Your task to perform on an android device: Open Google Maps Image 0: 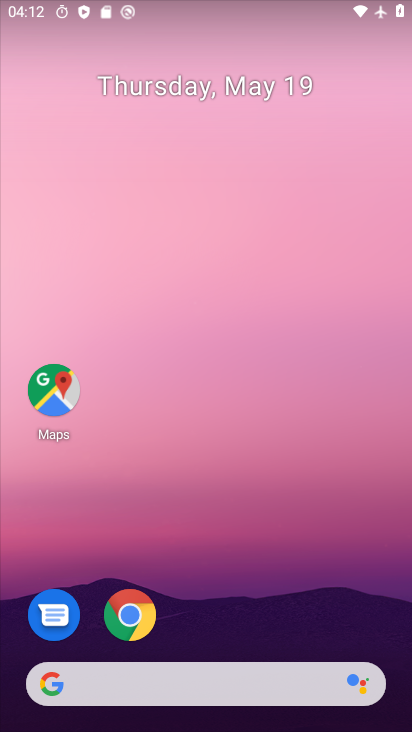
Step 0: click (57, 391)
Your task to perform on an android device: Open Google Maps Image 1: 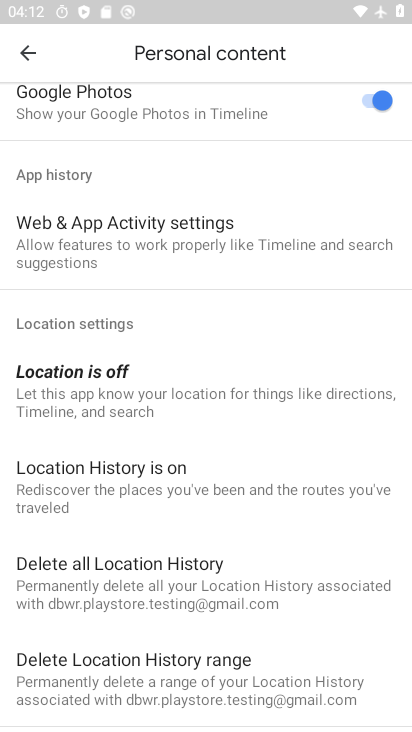
Step 1: click (24, 54)
Your task to perform on an android device: Open Google Maps Image 2: 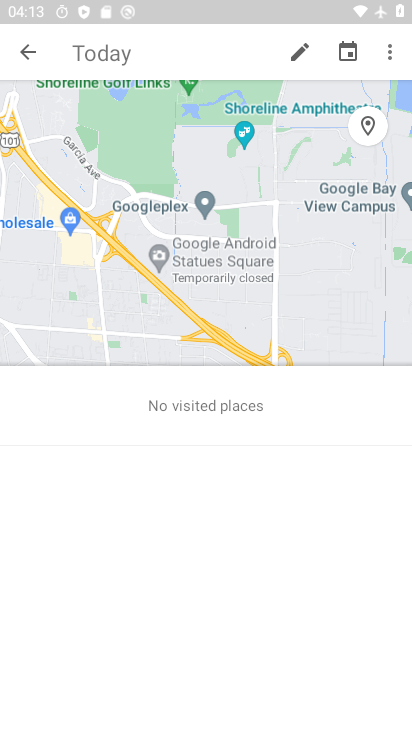
Step 2: click (28, 50)
Your task to perform on an android device: Open Google Maps Image 3: 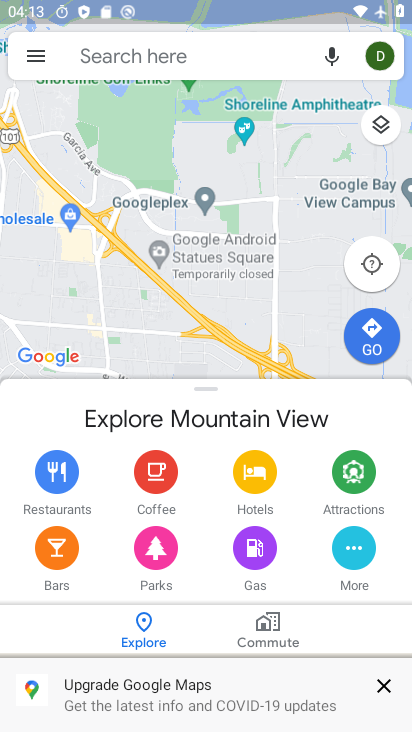
Step 3: task complete